Your task to perform on an android device: Open internet settings Image 0: 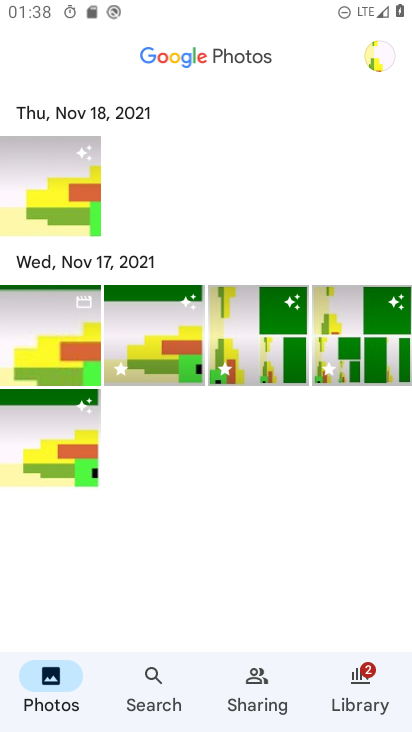
Step 0: press home button
Your task to perform on an android device: Open internet settings Image 1: 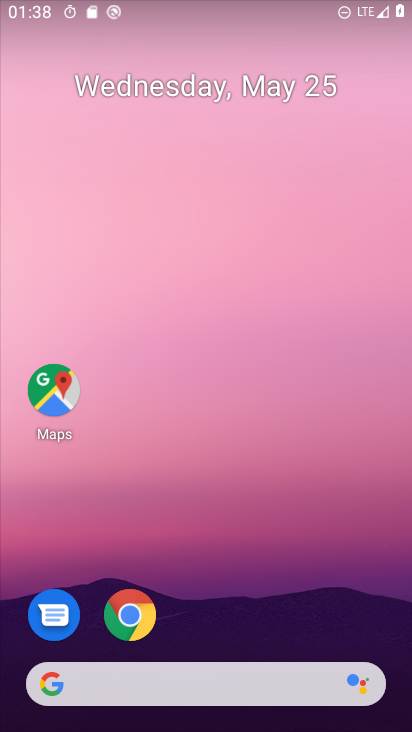
Step 1: drag from (282, 724) to (303, 1)
Your task to perform on an android device: Open internet settings Image 2: 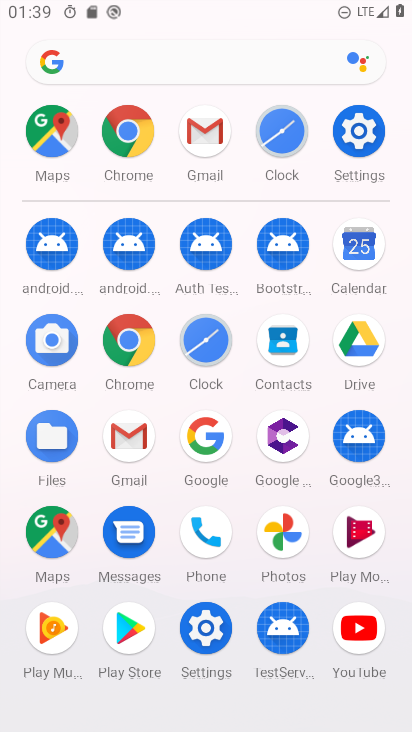
Step 2: click (353, 143)
Your task to perform on an android device: Open internet settings Image 3: 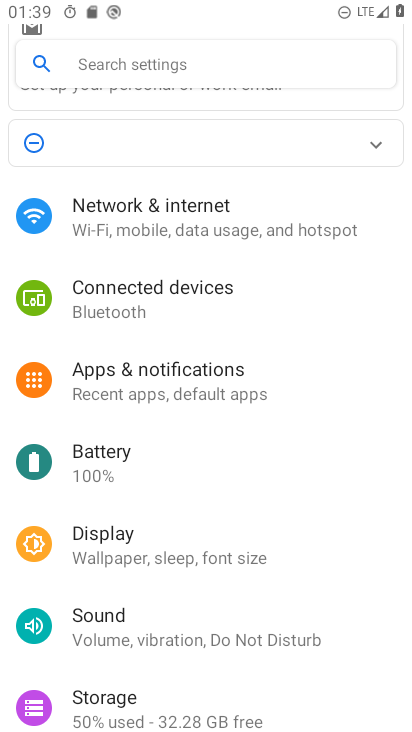
Step 3: click (179, 216)
Your task to perform on an android device: Open internet settings Image 4: 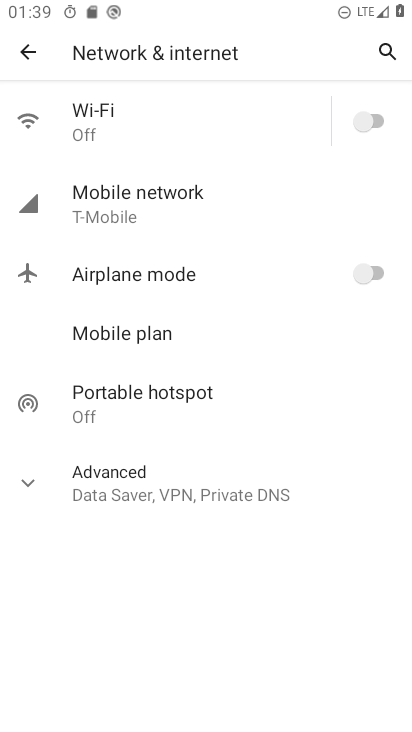
Step 4: task complete